Your task to perform on an android device: toggle notifications settings in the gmail app Image 0: 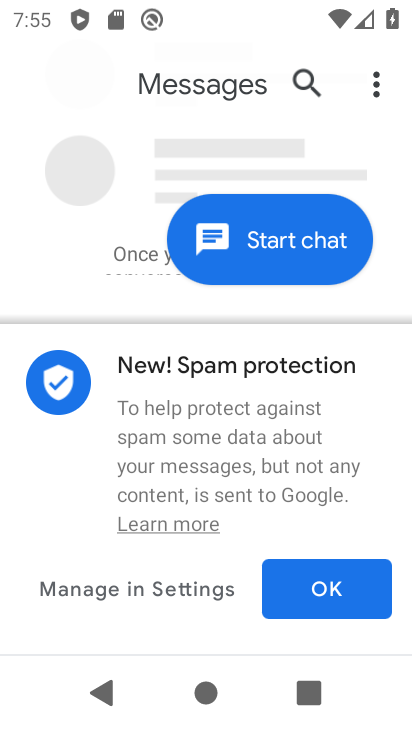
Step 0: press back button
Your task to perform on an android device: toggle notifications settings in the gmail app Image 1: 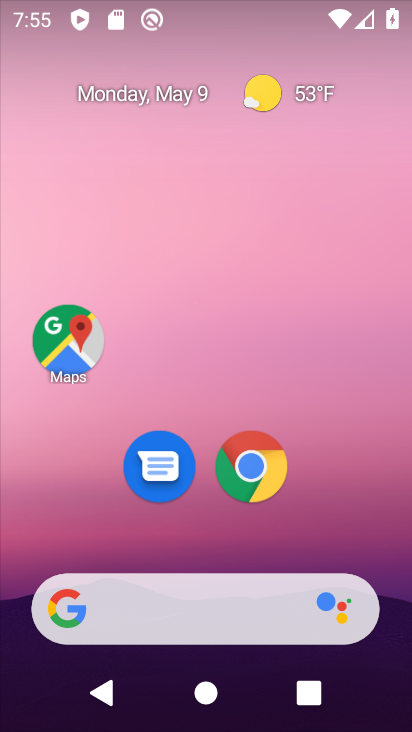
Step 1: drag from (300, 520) to (235, 51)
Your task to perform on an android device: toggle notifications settings in the gmail app Image 2: 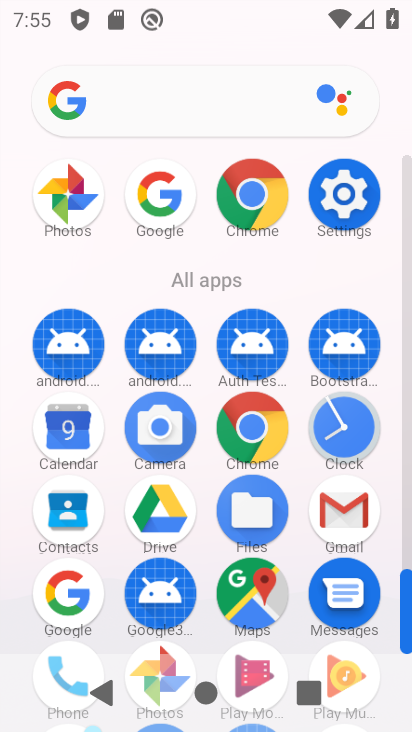
Step 2: click (341, 513)
Your task to perform on an android device: toggle notifications settings in the gmail app Image 3: 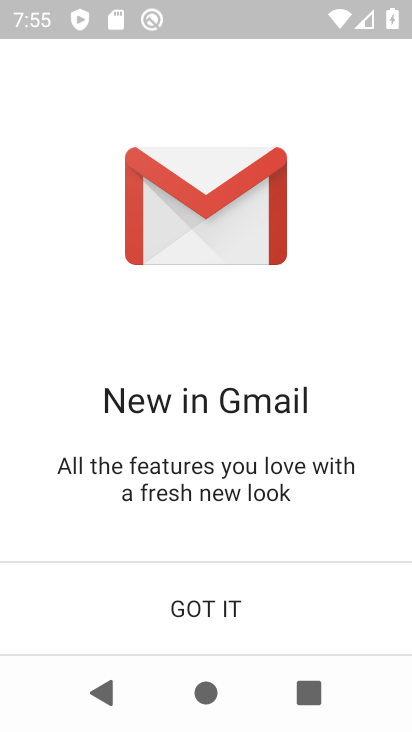
Step 3: click (199, 600)
Your task to perform on an android device: toggle notifications settings in the gmail app Image 4: 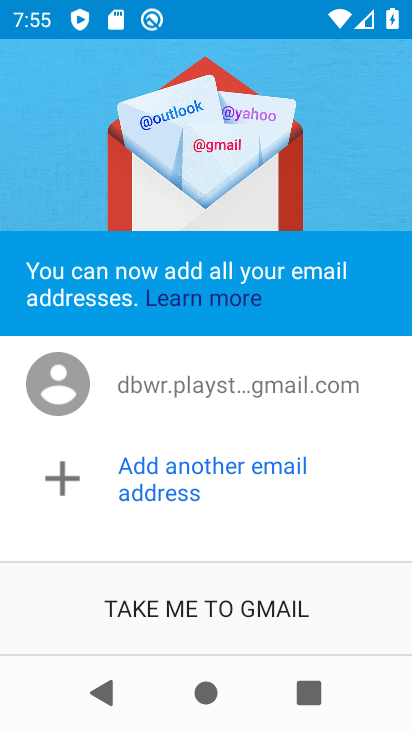
Step 4: click (200, 600)
Your task to perform on an android device: toggle notifications settings in the gmail app Image 5: 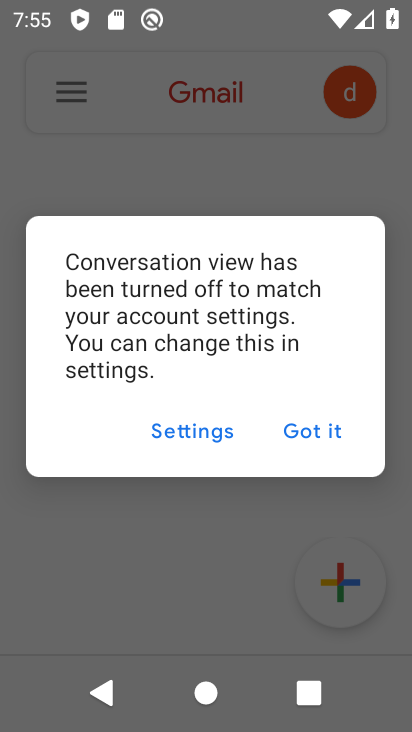
Step 5: click (322, 427)
Your task to perform on an android device: toggle notifications settings in the gmail app Image 6: 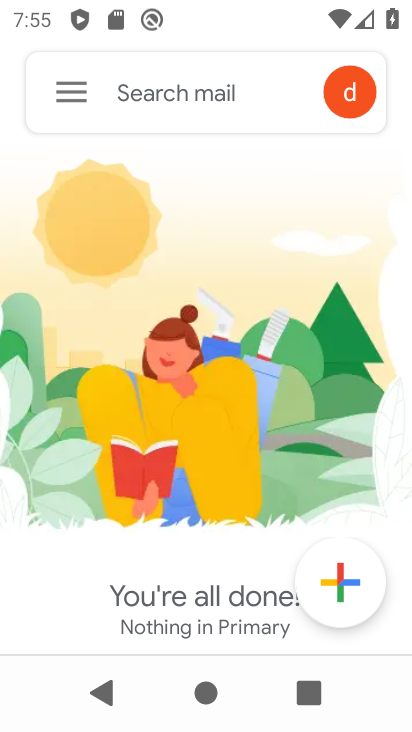
Step 6: click (79, 89)
Your task to perform on an android device: toggle notifications settings in the gmail app Image 7: 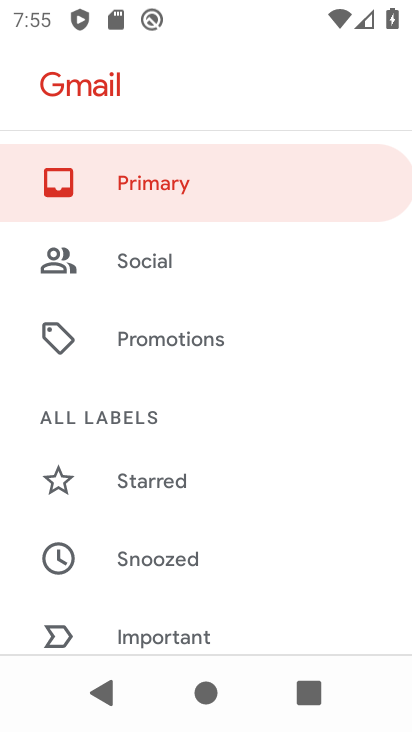
Step 7: drag from (197, 501) to (250, 374)
Your task to perform on an android device: toggle notifications settings in the gmail app Image 8: 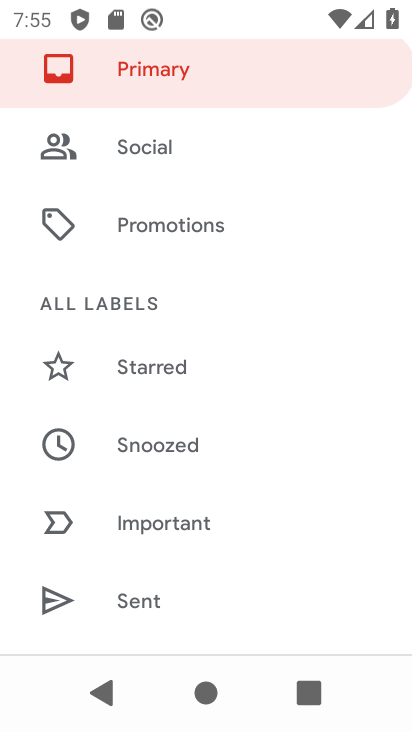
Step 8: drag from (187, 549) to (258, 434)
Your task to perform on an android device: toggle notifications settings in the gmail app Image 9: 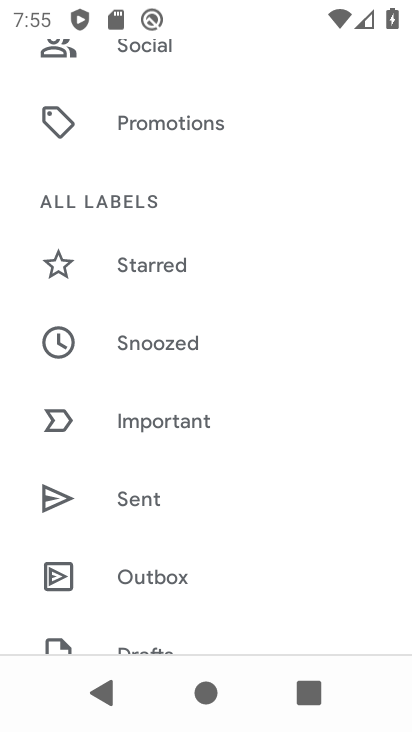
Step 9: drag from (222, 530) to (295, 395)
Your task to perform on an android device: toggle notifications settings in the gmail app Image 10: 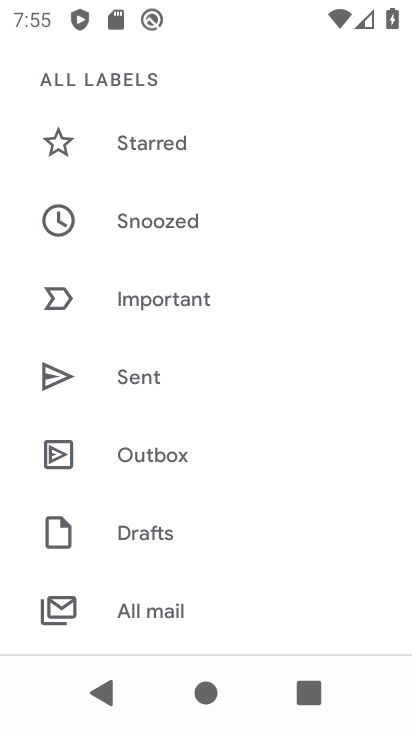
Step 10: drag from (228, 546) to (282, 437)
Your task to perform on an android device: toggle notifications settings in the gmail app Image 11: 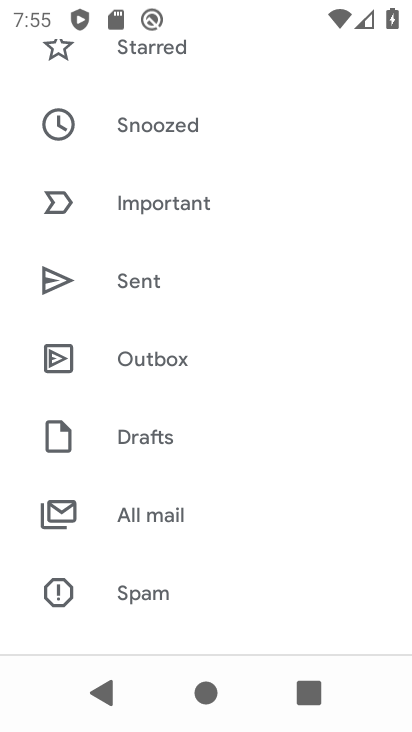
Step 11: drag from (216, 562) to (264, 457)
Your task to perform on an android device: toggle notifications settings in the gmail app Image 12: 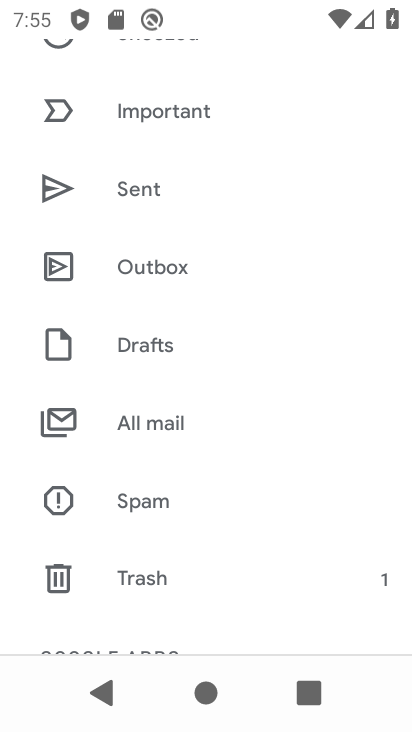
Step 12: drag from (210, 586) to (272, 457)
Your task to perform on an android device: toggle notifications settings in the gmail app Image 13: 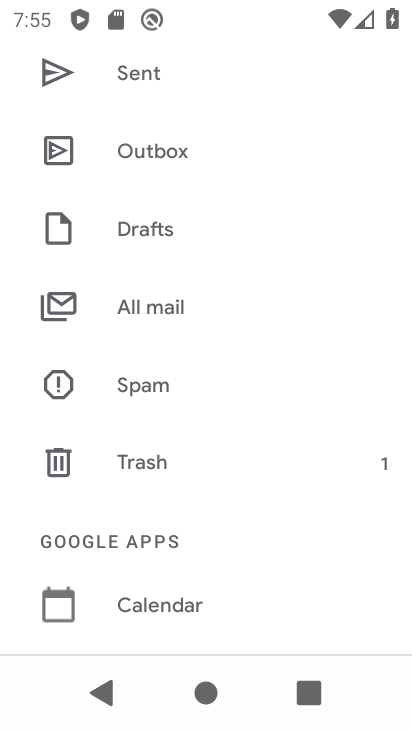
Step 13: drag from (240, 597) to (280, 450)
Your task to perform on an android device: toggle notifications settings in the gmail app Image 14: 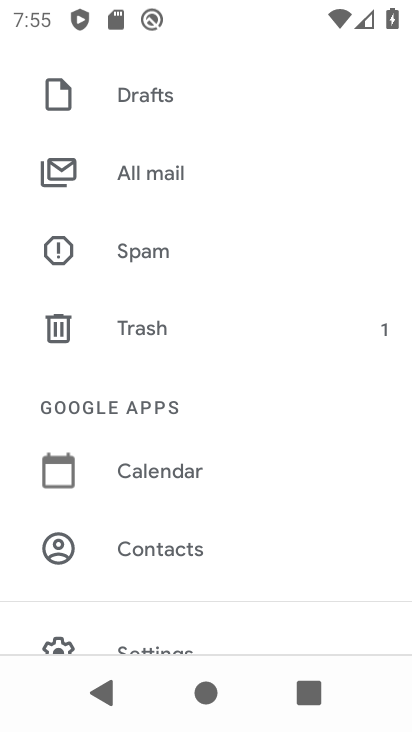
Step 14: drag from (206, 612) to (303, 468)
Your task to perform on an android device: toggle notifications settings in the gmail app Image 15: 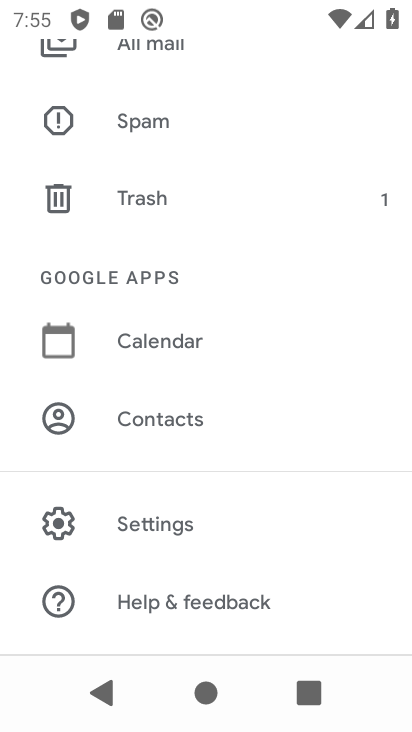
Step 15: click (176, 526)
Your task to perform on an android device: toggle notifications settings in the gmail app Image 16: 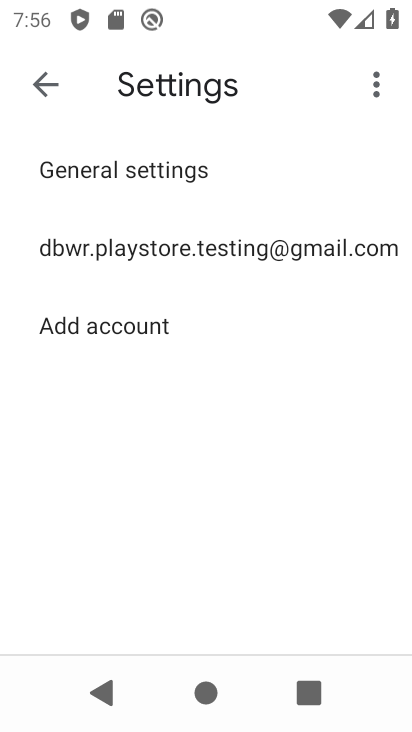
Step 16: click (257, 257)
Your task to perform on an android device: toggle notifications settings in the gmail app Image 17: 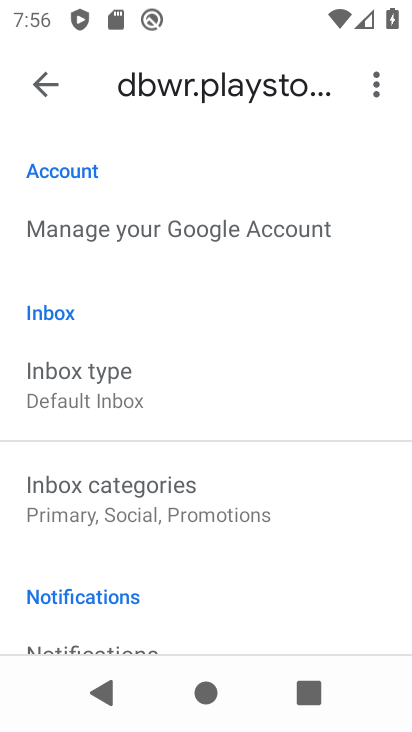
Step 17: drag from (164, 530) to (209, 370)
Your task to perform on an android device: toggle notifications settings in the gmail app Image 18: 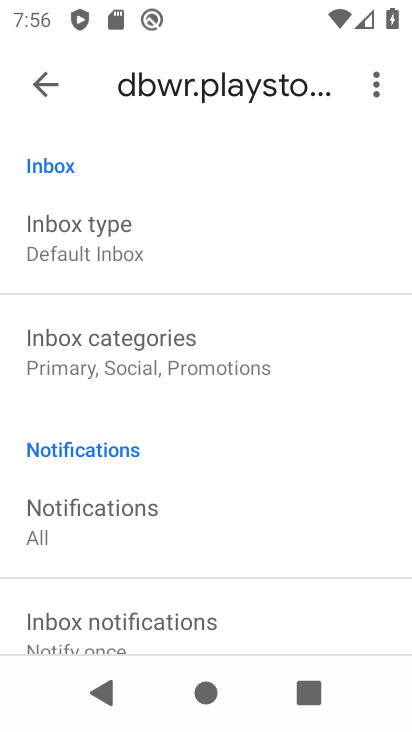
Step 18: drag from (163, 523) to (230, 383)
Your task to perform on an android device: toggle notifications settings in the gmail app Image 19: 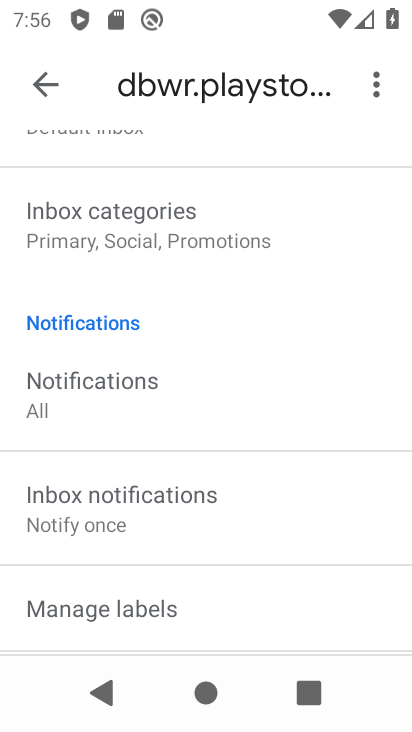
Step 19: drag from (154, 561) to (263, 433)
Your task to perform on an android device: toggle notifications settings in the gmail app Image 20: 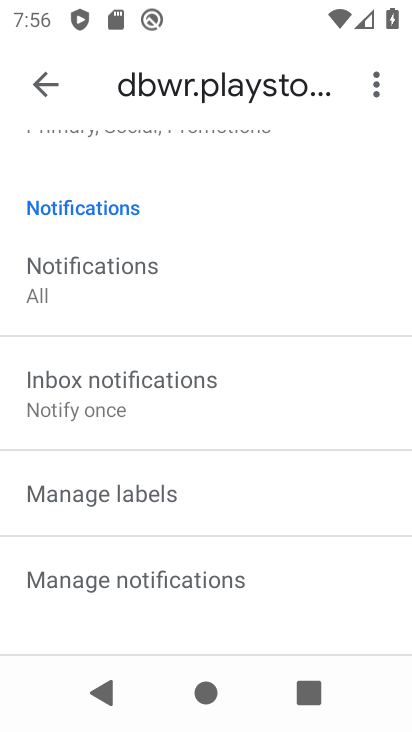
Step 20: click (164, 578)
Your task to perform on an android device: toggle notifications settings in the gmail app Image 21: 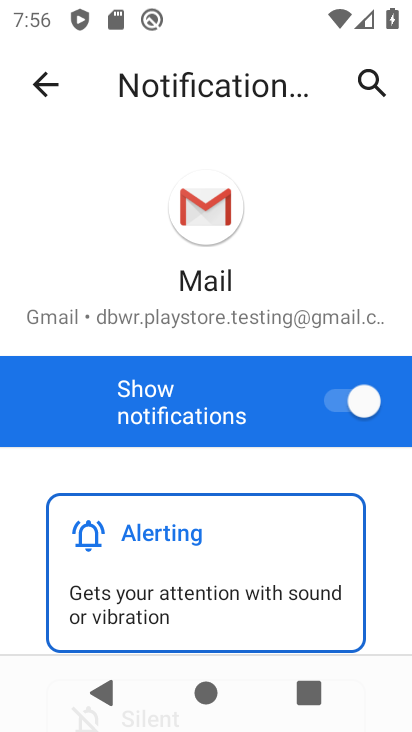
Step 21: click (362, 404)
Your task to perform on an android device: toggle notifications settings in the gmail app Image 22: 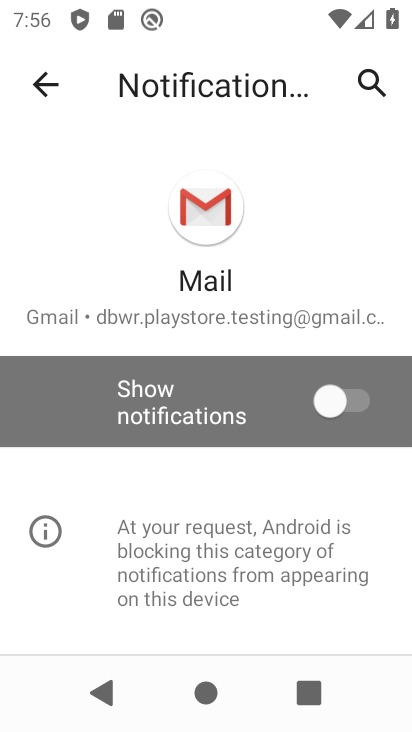
Step 22: task complete